Your task to perform on an android device: turn off improve location accuracy Image 0: 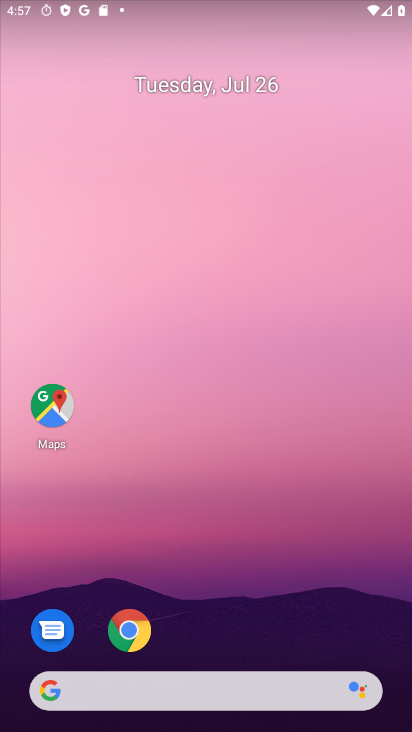
Step 0: drag from (307, 565) to (278, 50)
Your task to perform on an android device: turn off improve location accuracy Image 1: 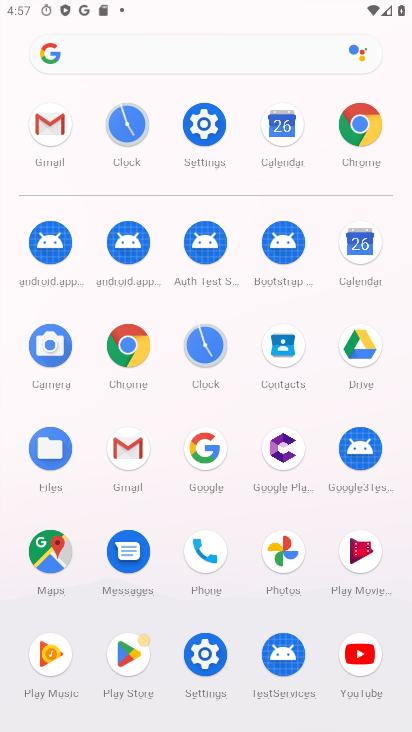
Step 1: click (205, 118)
Your task to perform on an android device: turn off improve location accuracy Image 2: 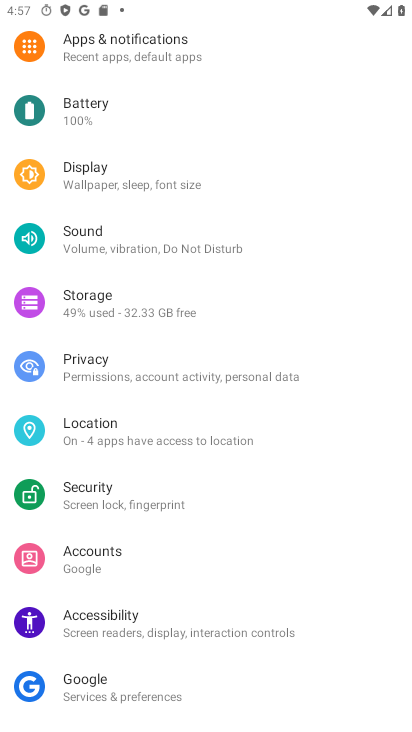
Step 2: click (114, 437)
Your task to perform on an android device: turn off improve location accuracy Image 3: 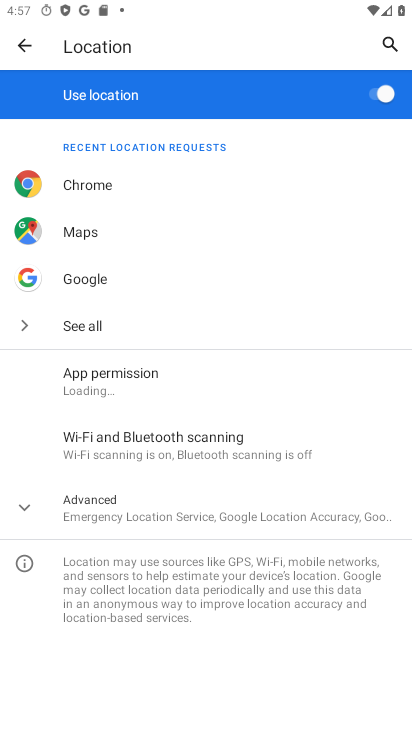
Step 3: click (167, 516)
Your task to perform on an android device: turn off improve location accuracy Image 4: 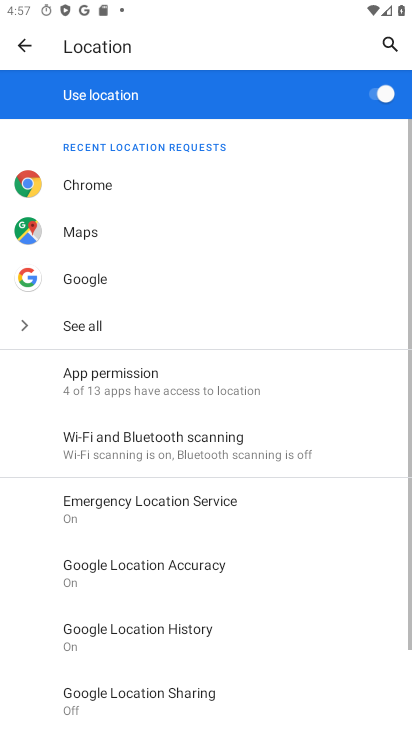
Step 4: click (206, 565)
Your task to perform on an android device: turn off improve location accuracy Image 5: 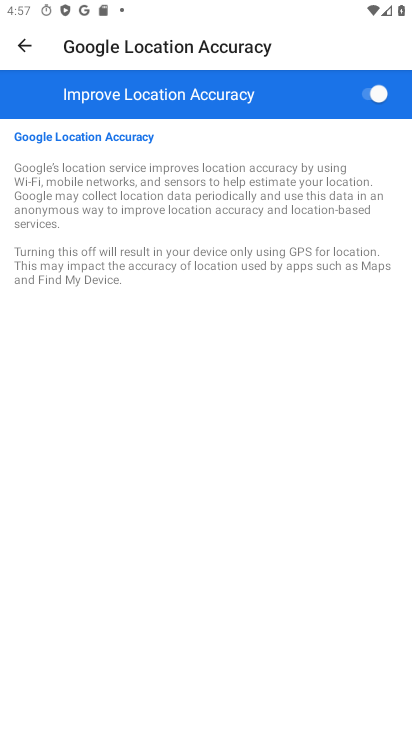
Step 5: click (379, 85)
Your task to perform on an android device: turn off improve location accuracy Image 6: 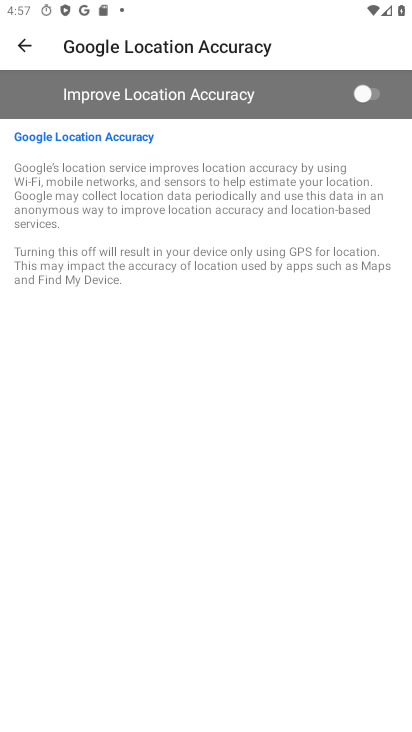
Step 6: task complete